Your task to perform on an android device: What is the recent news? Image 0: 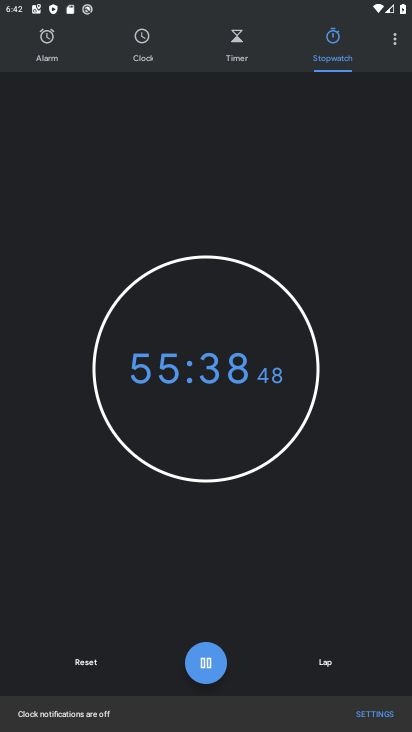
Step 0: press home button
Your task to perform on an android device: What is the recent news? Image 1: 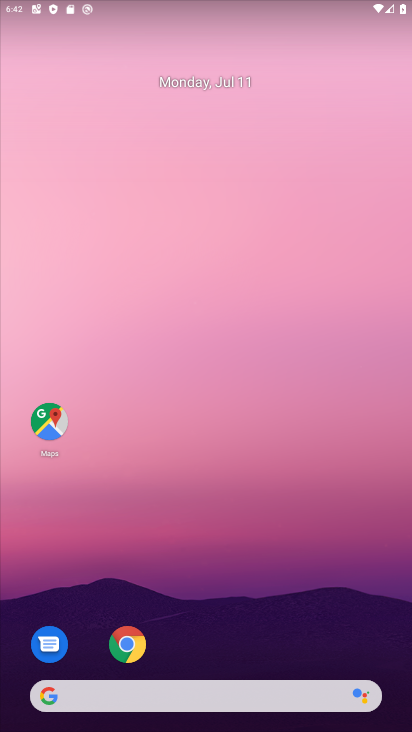
Step 1: drag from (210, 603) to (230, 196)
Your task to perform on an android device: What is the recent news? Image 2: 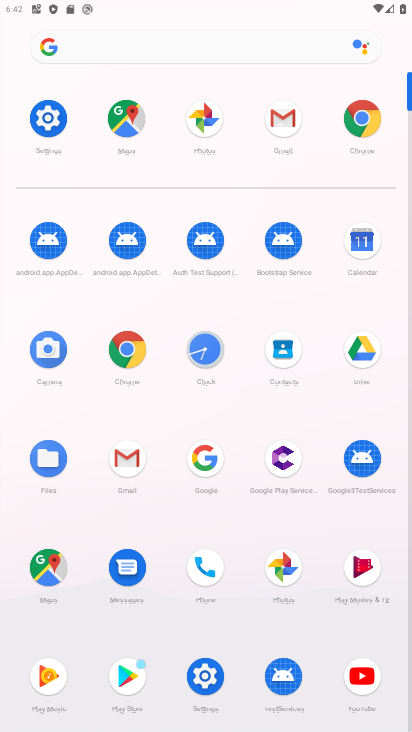
Step 2: click (124, 356)
Your task to perform on an android device: What is the recent news? Image 3: 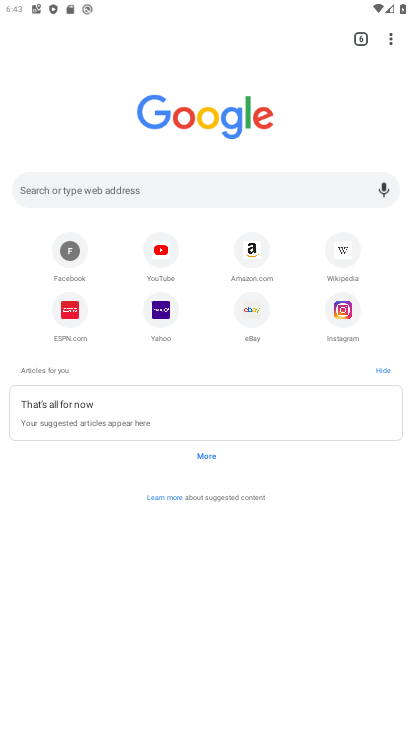
Step 3: click (124, 195)
Your task to perform on an android device: What is the recent news? Image 4: 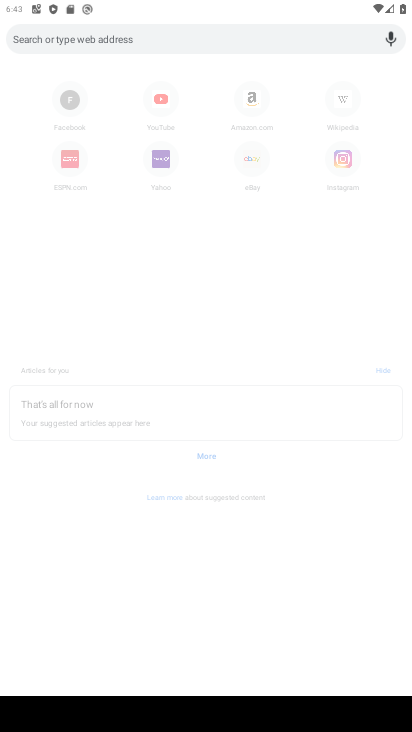
Step 4: type "recent news"
Your task to perform on an android device: What is the recent news? Image 5: 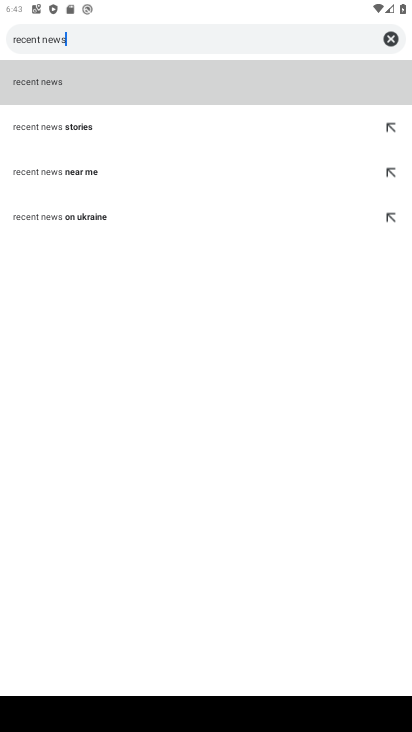
Step 5: click (63, 80)
Your task to perform on an android device: What is the recent news? Image 6: 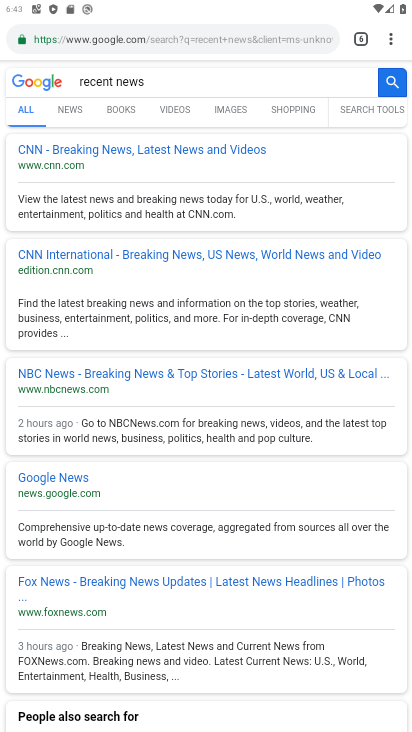
Step 6: task complete